Your task to perform on an android device: Open settings on Google Maps Image 0: 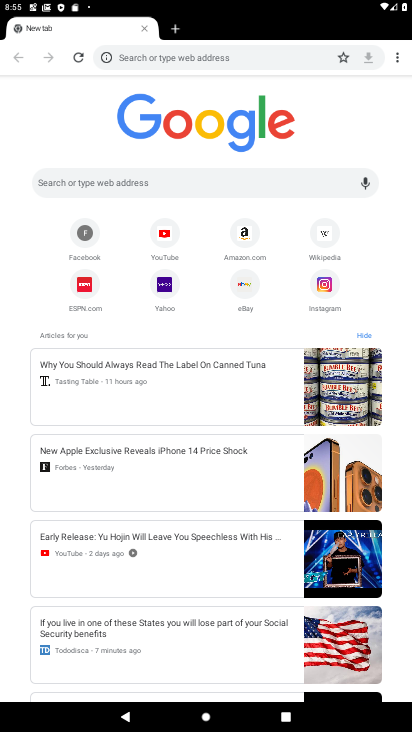
Step 0: press home button
Your task to perform on an android device: Open settings on Google Maps Image 1: 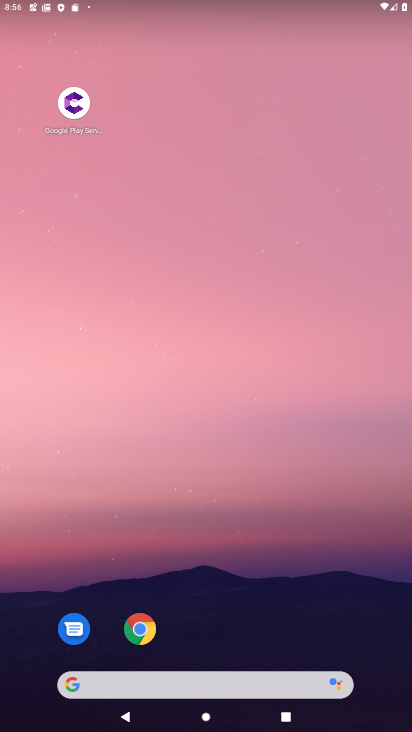
Step 1: drag from (285, 645) to (277, 54)
Your task to perform on an android device: Open settings on Google Maps Image 2: 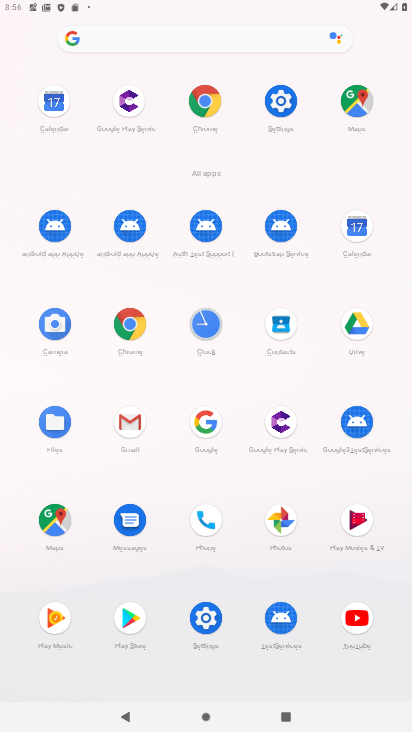
Step 2: click (57, 521)
Your task to perform on an android device: Open settings on Google Maps Image 3: 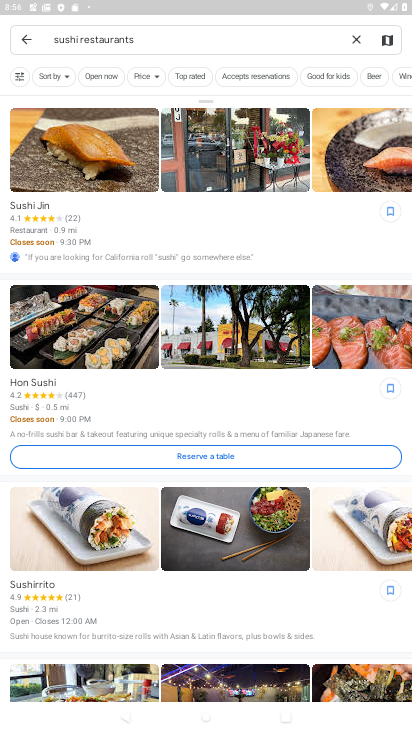
Step 3: click (352, 36)
Your task to perform on an android device: Open settings on Google Maps Image 4: 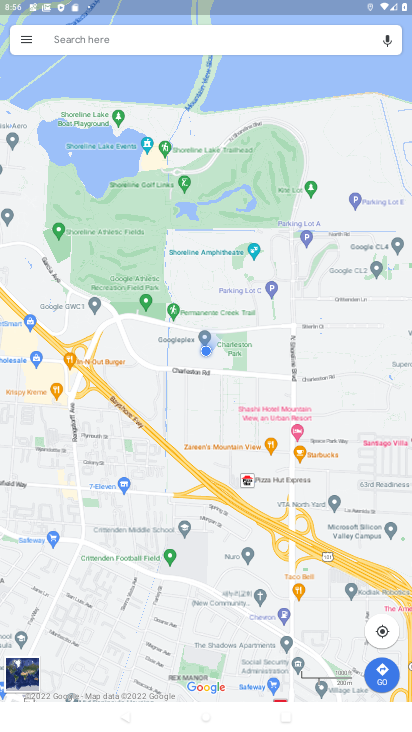
Step 4: click (27, 38)
Your task to perform on an android device: Open settings on Google Maps Image 5: 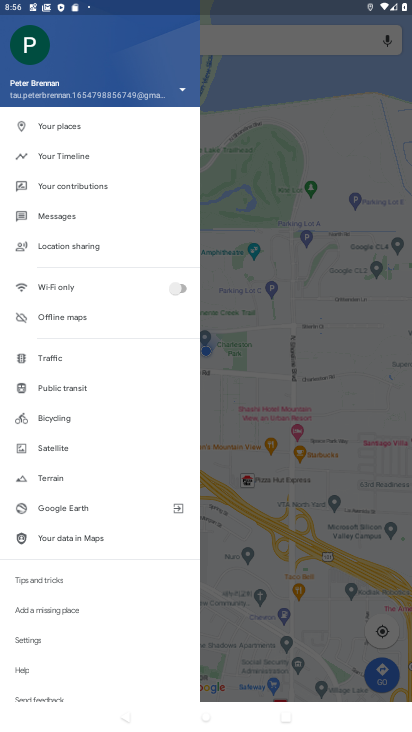
Step 5: click (30, 635)
Your task to perform on an android device: Open settings on Google Maps Image 6: 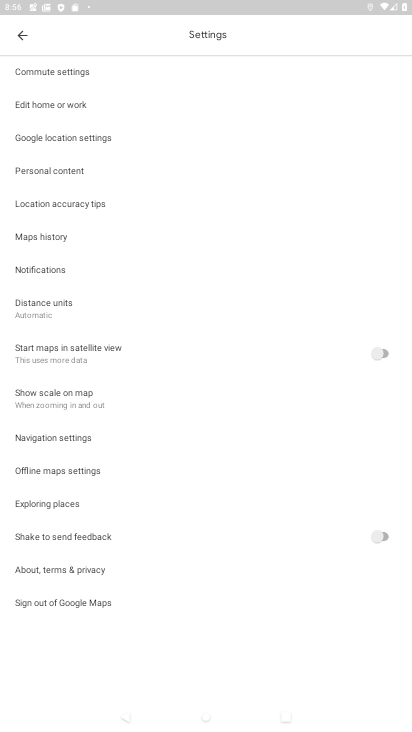
Step 6: task complete